Your task to perform on an android device: Go to Yahoo.com Image 0: 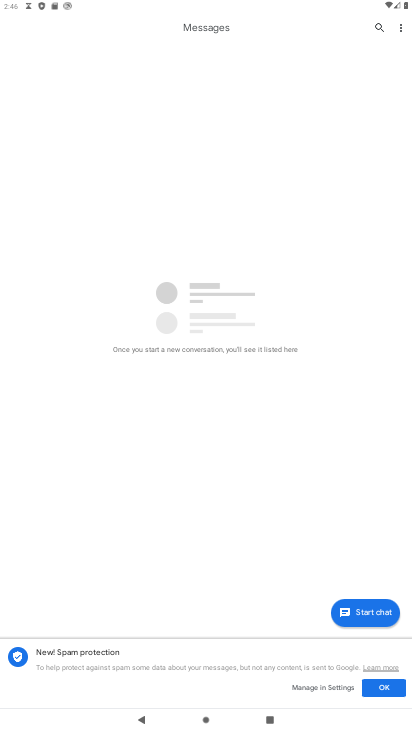
Step 0: press home button
Your task to perform on an android device: Go to Yahoo.com Image 1: 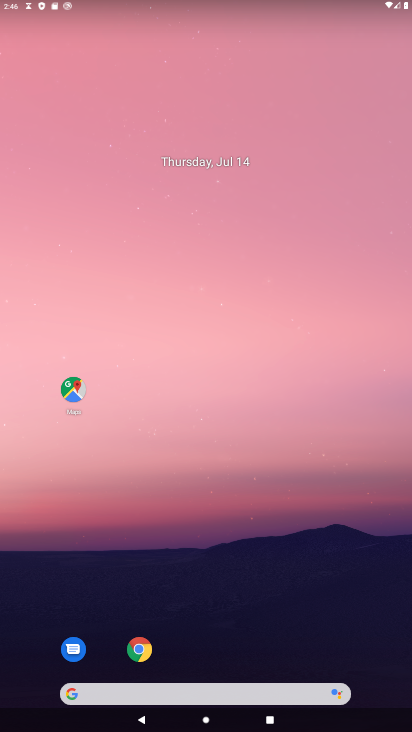
Step 1: click (155, 653)
Your task to perform on an android device: Go to Yahoo.com Image 2: 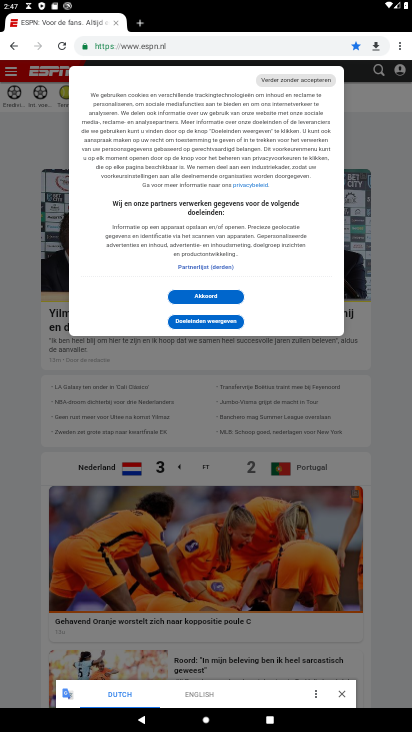
Step 2: click (176, 36)
Your task to perform on an android device: Go to Yahoo.com Image 3: 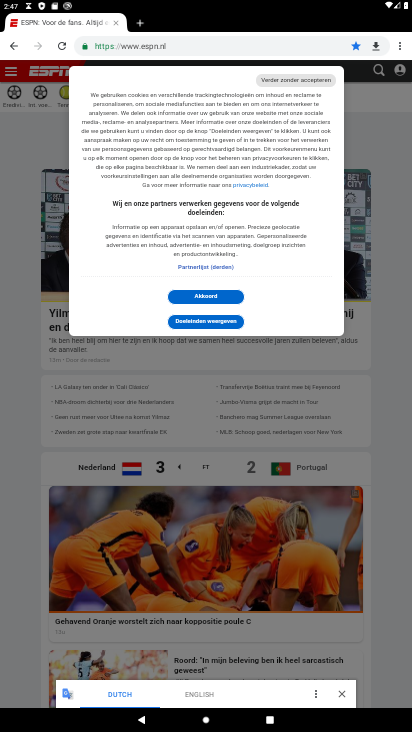
Step 3: click (161, 45)
Your task to perform on an android device: Go to Yahoo.com Image 4: 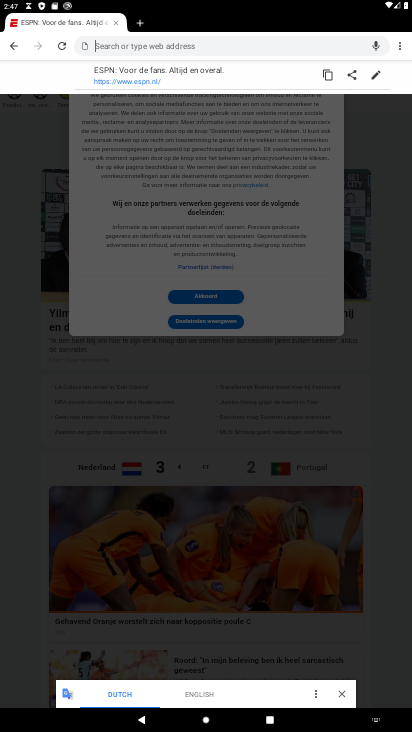
Step 4: type "Yahoo.com"
Your task to perform on an android device: Go to Yahoo.com Image 5: 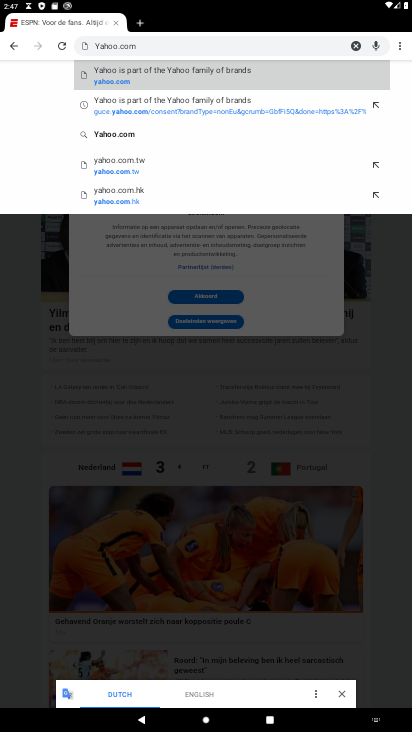
Step 5: click (140, 73)
Your task to perform on an android device: Go to Yahoo.com Image 6: 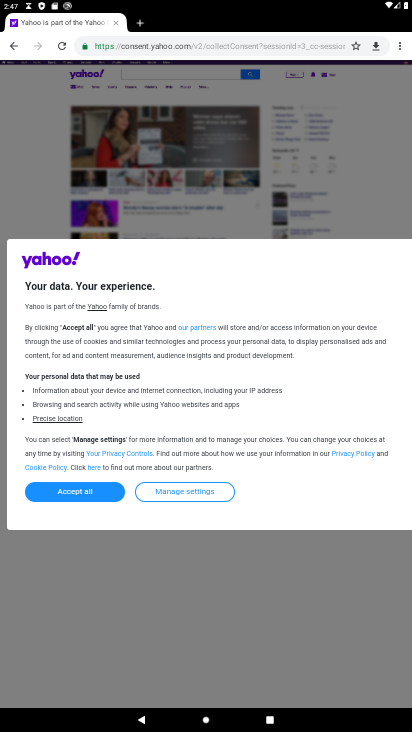
Step 6: task complete